Your task to perform on an android device: Go to battery settings Image 0: 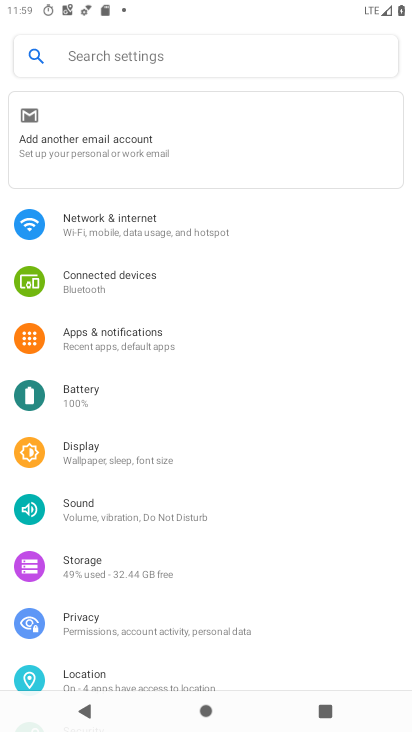
Step 0: press home button
Your task to perform on an android device: Go to battery settings Image 1: 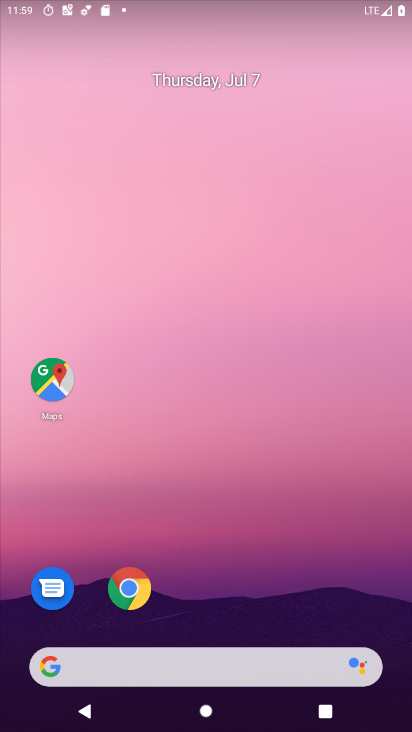
Step 1: drag from (176, 596) to (295, 136)
Your task to perform on an android device: Go to battery settings Image 2: 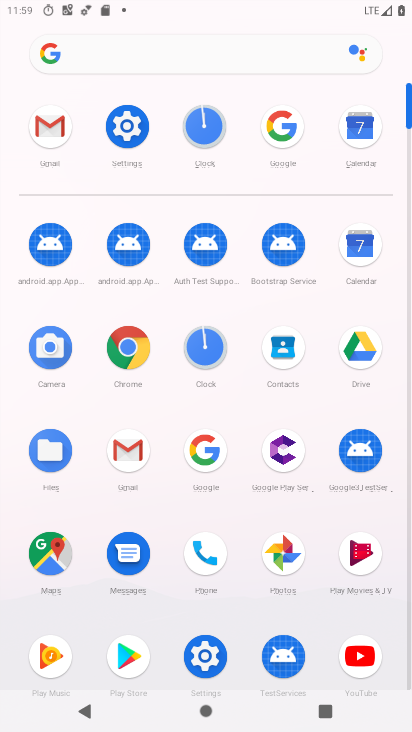
Step 2: click (127, 130)
Your task to perform on an android device: Go to battery settings Image 3: 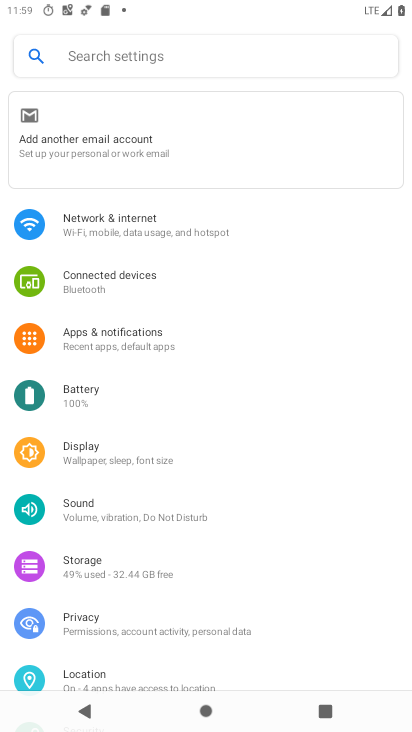
Step 3: click (92, 391)
Your task to perform on an android device: Go to battery settings Image 4: 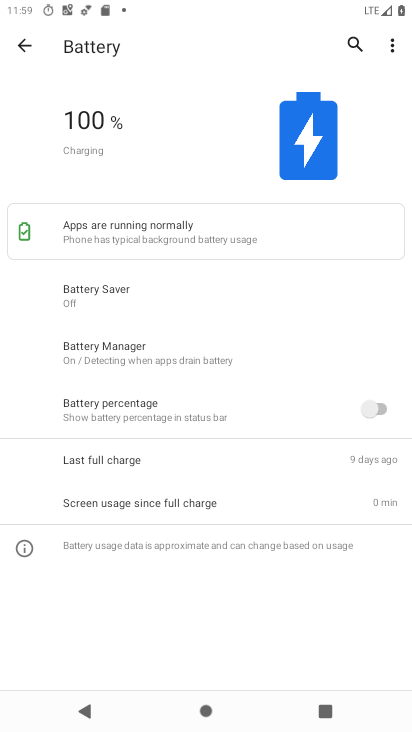
Step 4: task complete